Your task to perform on an android device: Open notification settings Image 0: 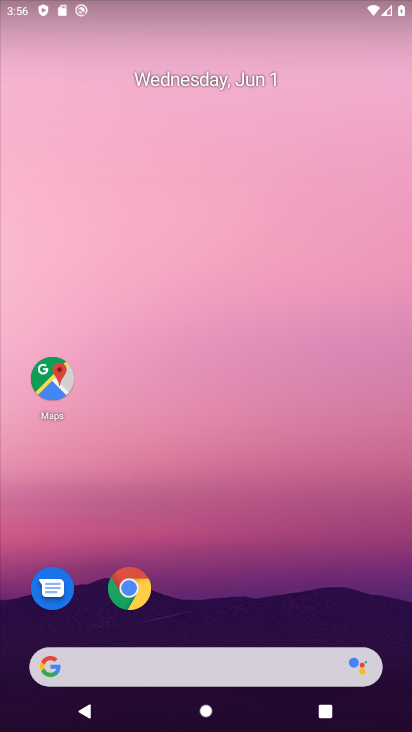
Step 0: drag from (242, 605) to (171, 256)
Your task to perform on an android device: Open notification settings Image 1: 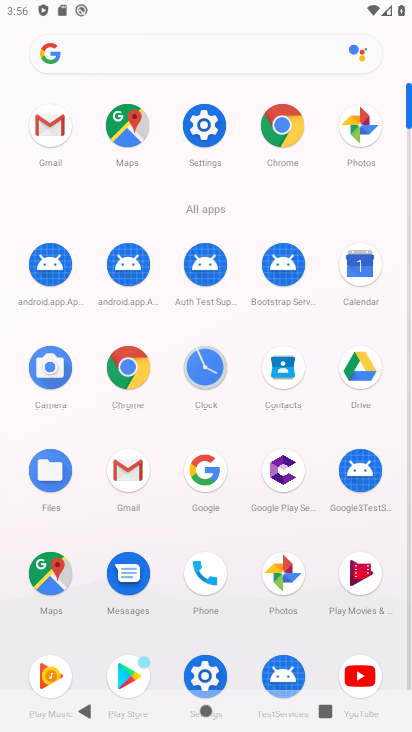
Step 1: click (207, 115)
Your task to perform on an android device: Open notification settings Image 2: 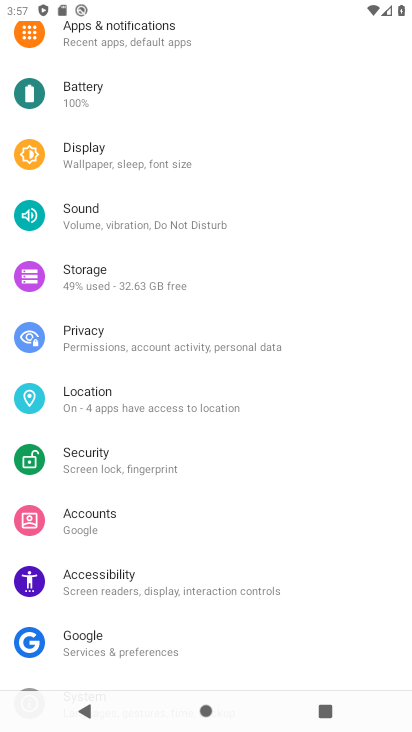
Step 2: drag from (180, 88) to (168, 414)
Your task to perform on an android device: Open notification settings Image 3: 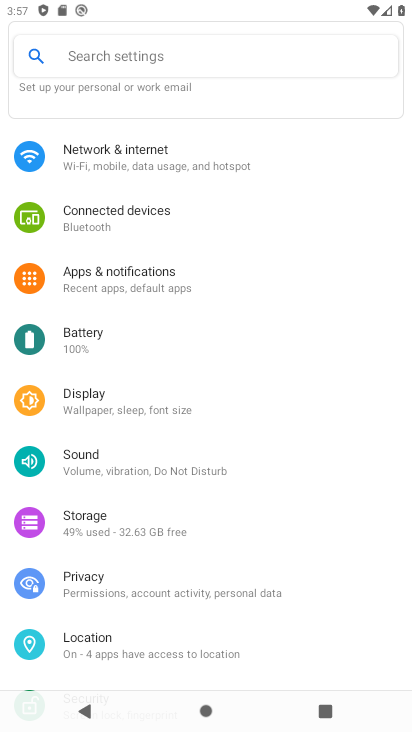
Step 3: click (146, 71)
Your task to perform on an android device: Open notification settings Image 4: 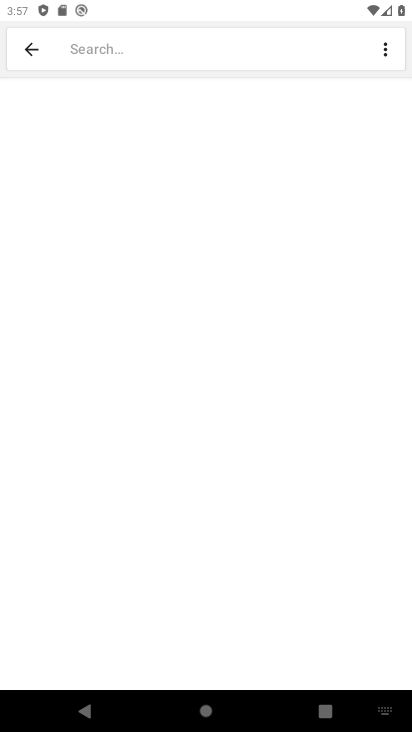
Step 4: press back button
Your task to perform on an android device: Open notification settings Image 5: 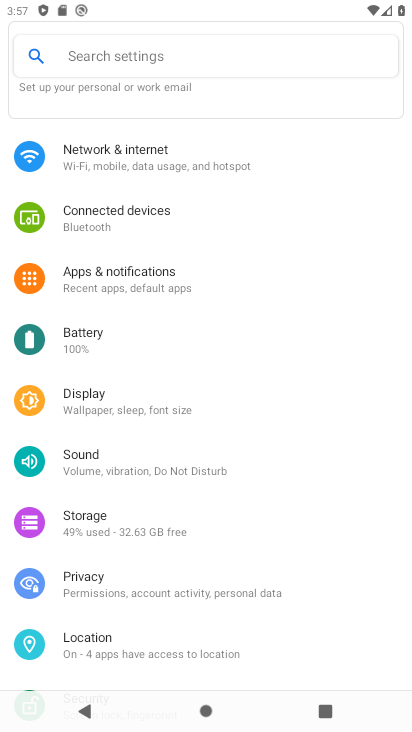
Step 5: click (243, 283)
Your task to perform on an android device: Open notification settings Image 6: 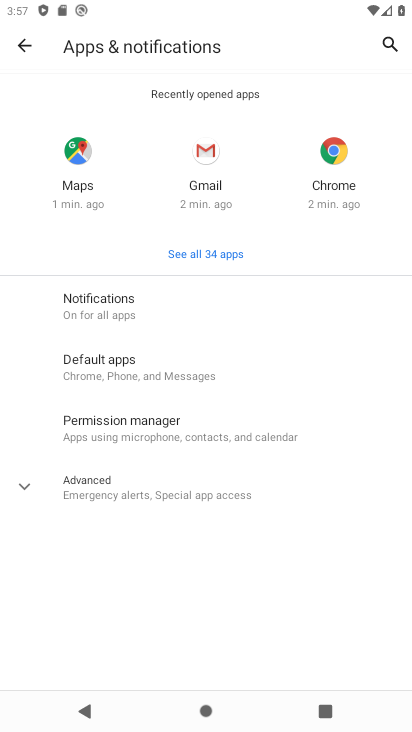
Step 6: click (161, 282)
Your task to perform on an android device: Open notification settings Image 7: 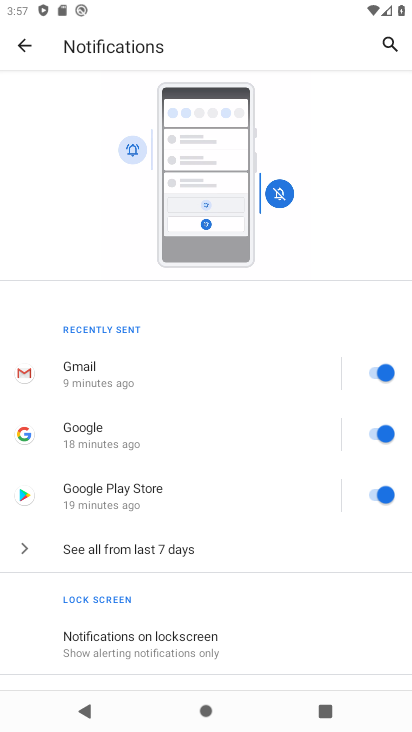
Step 7: task complete